Your task to perform on an android device: Is it going to rain tomorrow? Image 0: 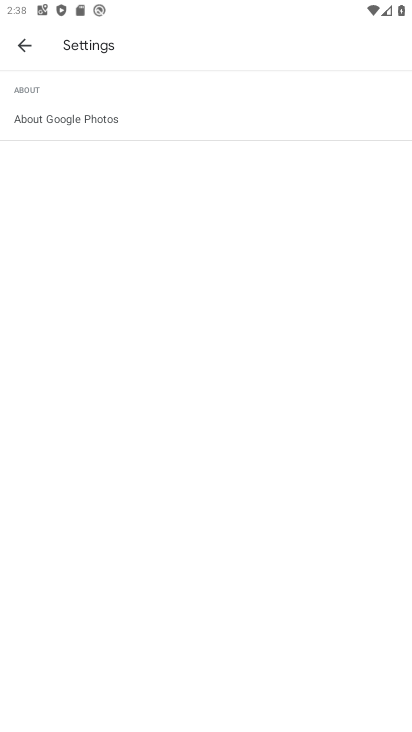
Step 0: press home button
Your task to perform on an android device: Is it going to rain tomorrow? Image 1: 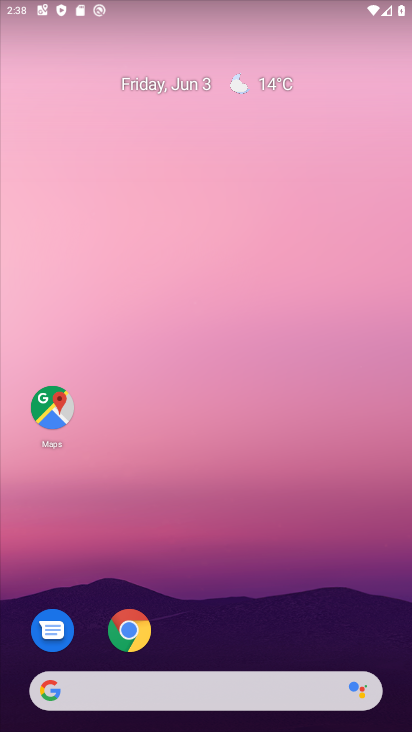
Step 1: click (283, 705)
Your task to perform on an android device: Is it going to rain tomorrow? Image 2: 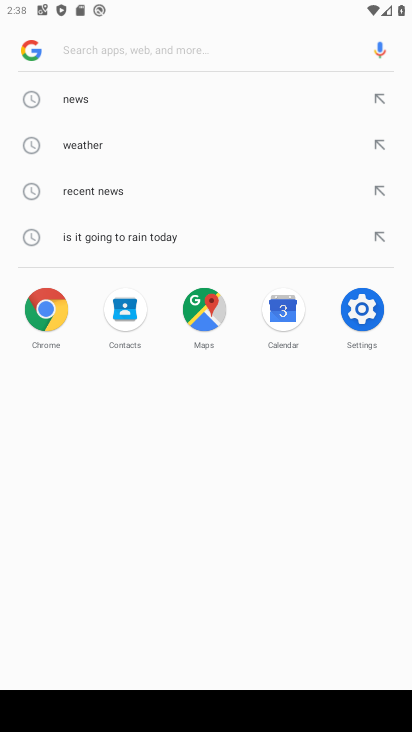
Step 2: click (112, 49)
Your task to perform on an android device: Is it going to rain tomorrow? Image 3: 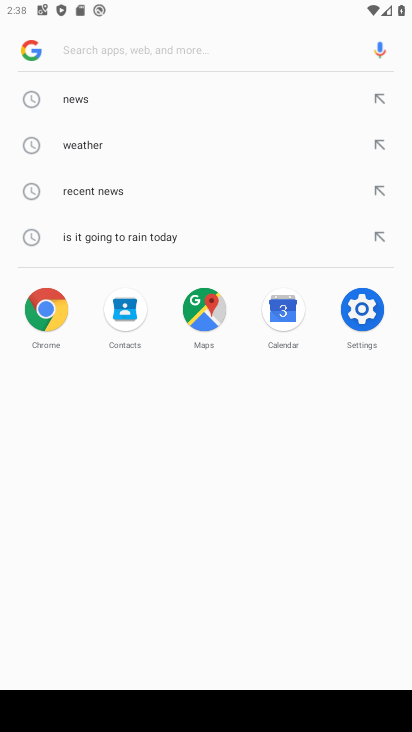
Step 3: type "Is it going to rain tomorrow?"
Your task to perform on an android device: Is it going to rain tomorrow? Image 4: 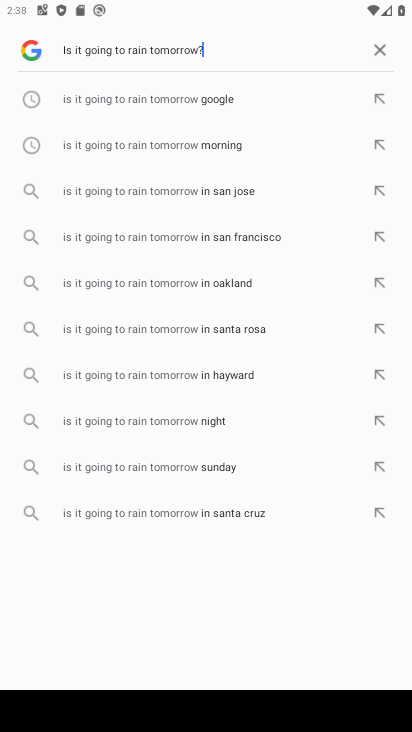
Step 4: click (225, 105)
Your task to perform on an android device: Is it going to rain tomorrow? Image 5: 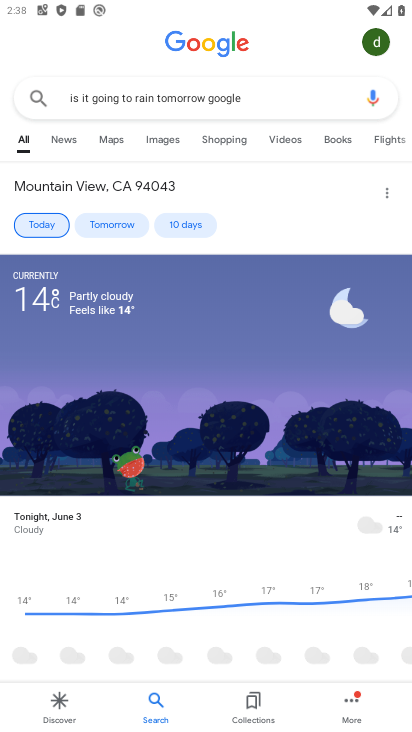
Step 5: task complete